Your task to perform on an android device: turn on translation in the chrome app Image 0: 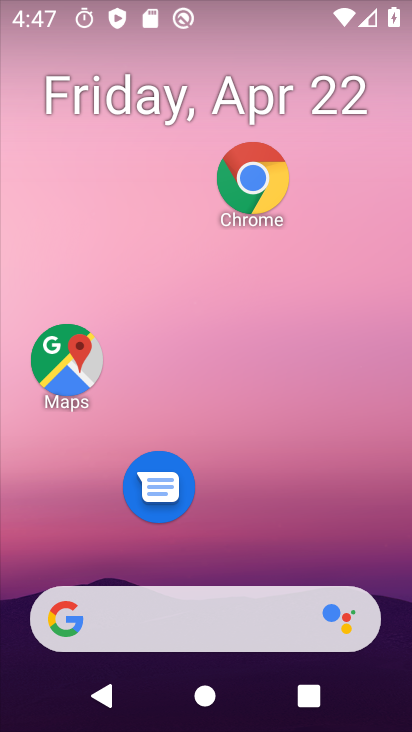
Step 0: click (228, 112)
Your task to perform on an android device: turn on translation in the chrome app Image 1: 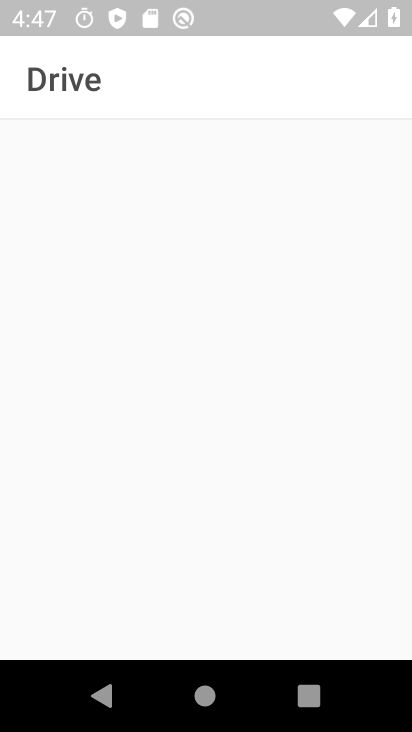
Step 1: press home button
Your task to perform on an android device: turn on translation in the chrome app Image 2: 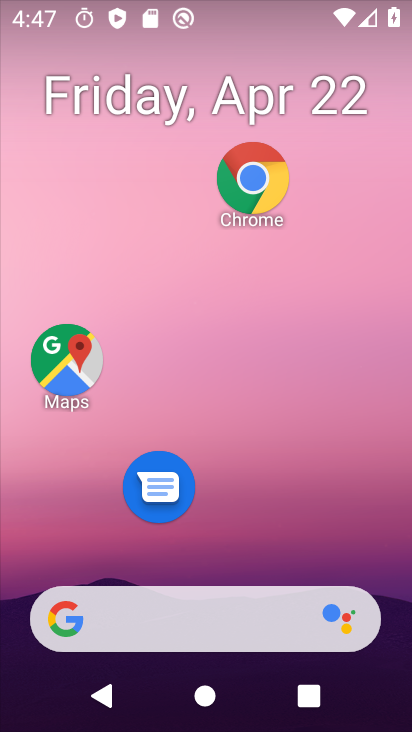
Step 2: drag from (223, 697) to (223, 180)
Your task to perform on an android device: turn on translation in the chrome app Image 3: 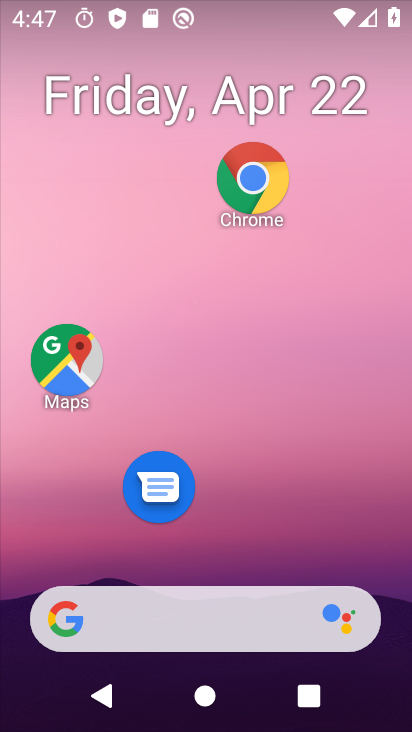
Step 3: drag from (224, 721) to (225, 146)
Your task to perform on an android device: turn on translation in the chrome app Image 4: 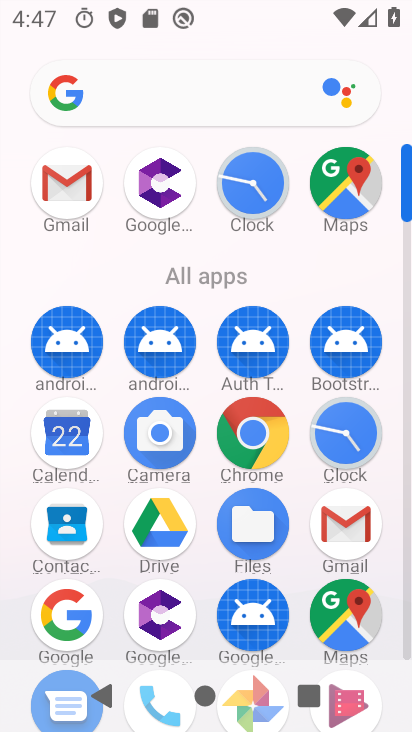
Step 4: click (254, 426)
Your task to perform on an android device: turn on translation in the chrome app Image 5: 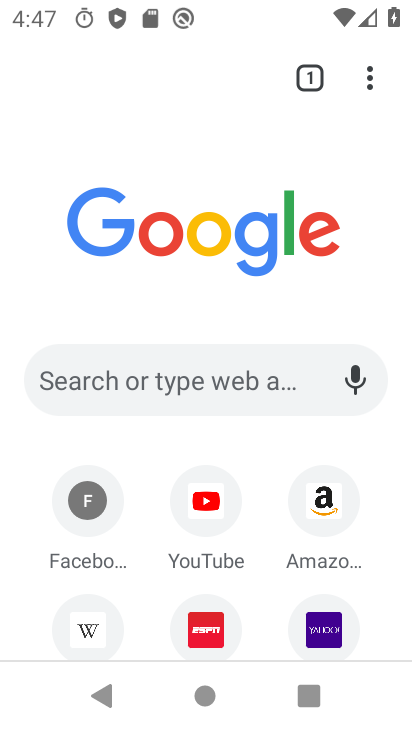
Step 5: drag from (366, 84) to (235, 530)
Your task to perform on an android device: turn on translation in the chrome app Image 6: 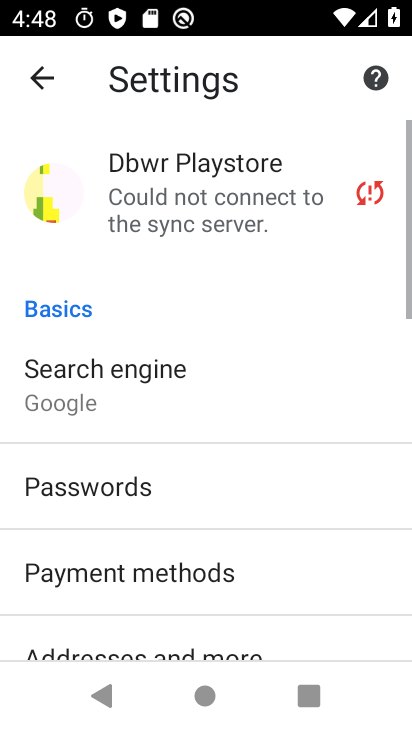
Step 6: drag from (191, 642) to (205, 248)
Your task to perform on an android device: turn on translation in the chrome app Image 7: 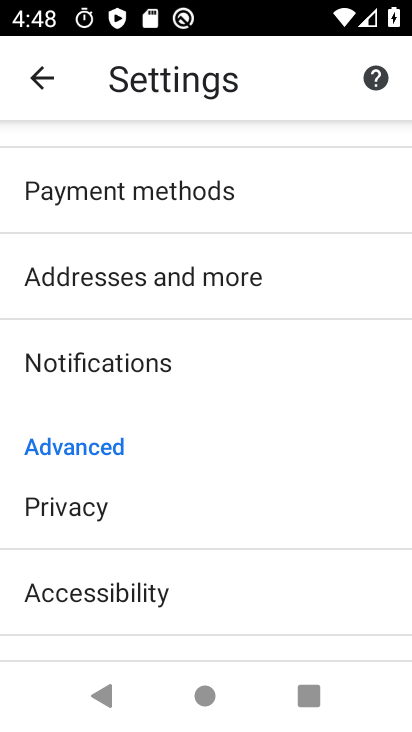
Step 7: drag from (189, 574) to (189, 248)
Your task to perform on an android device: turn on translation in the chrome app Image 8: 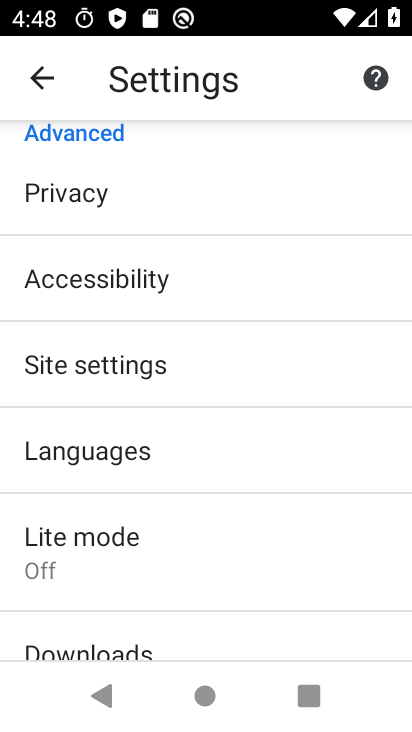
Step 8: click (97, 443)
Your task to perform on an android device: turn on translation in the chrome app Image 9: 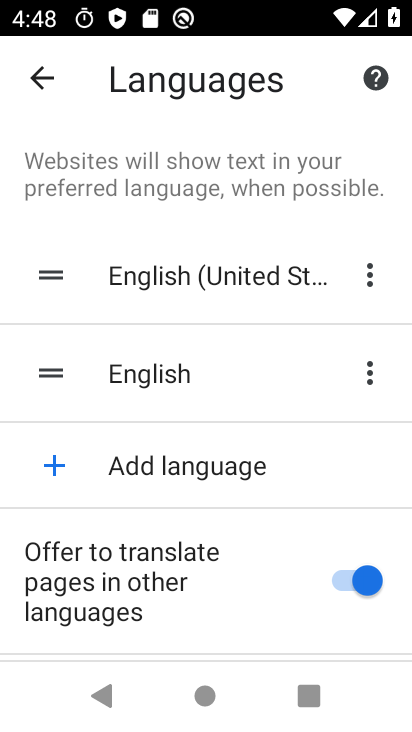
Step 9: task complete